Your task to perform on an android device: turn on bluetooth scan Image 0: 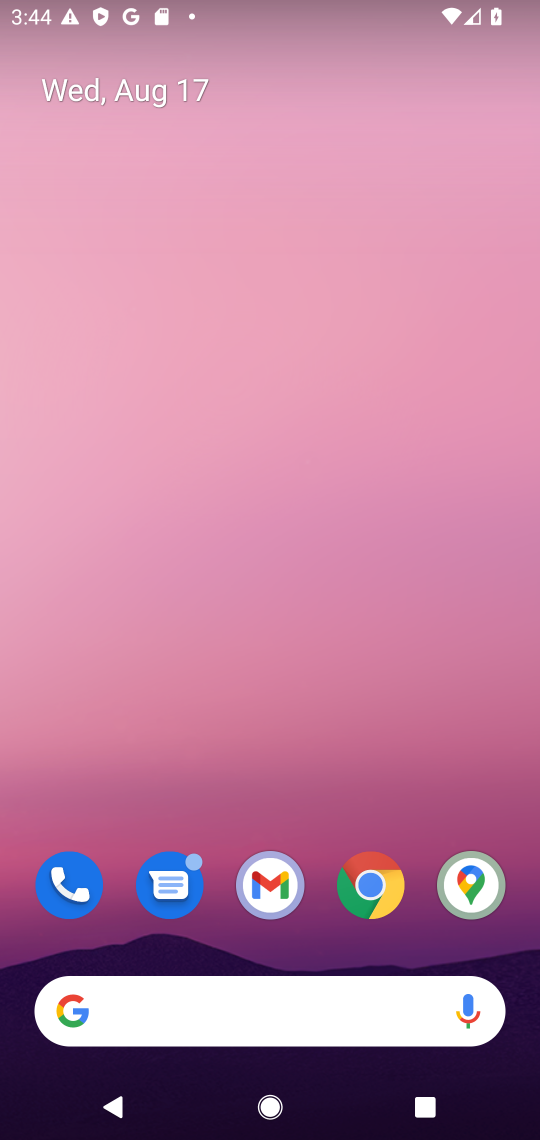
Step 0: drag from (229, 1005) to (268, 275)
Your task to perform on an android device: turn on bluetooth scan Image 1: 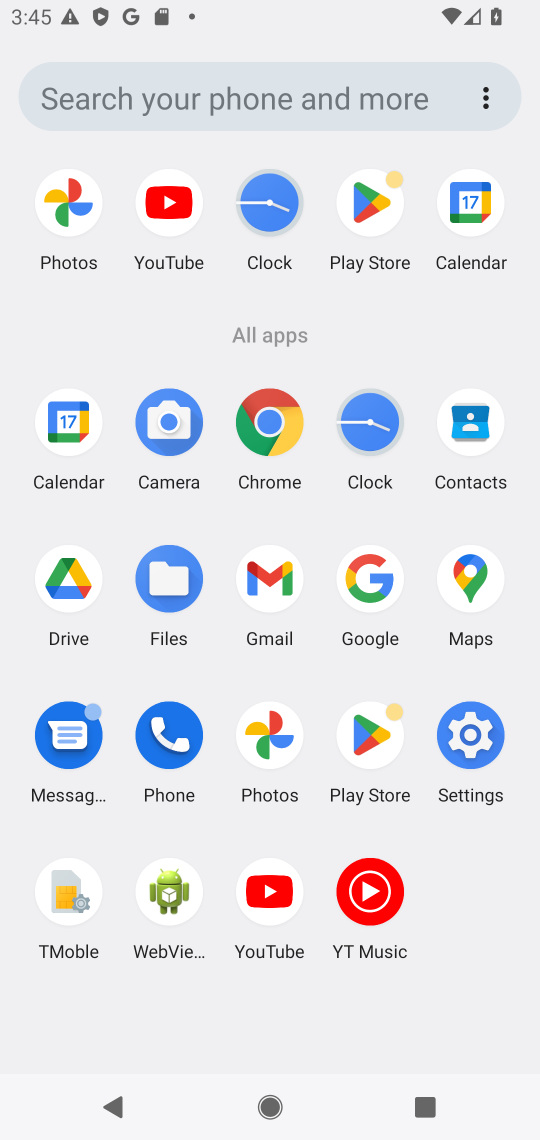
Step 1: click (470, 736)
Your task to perform on an android device: turn on bluetooth scan Image 2: 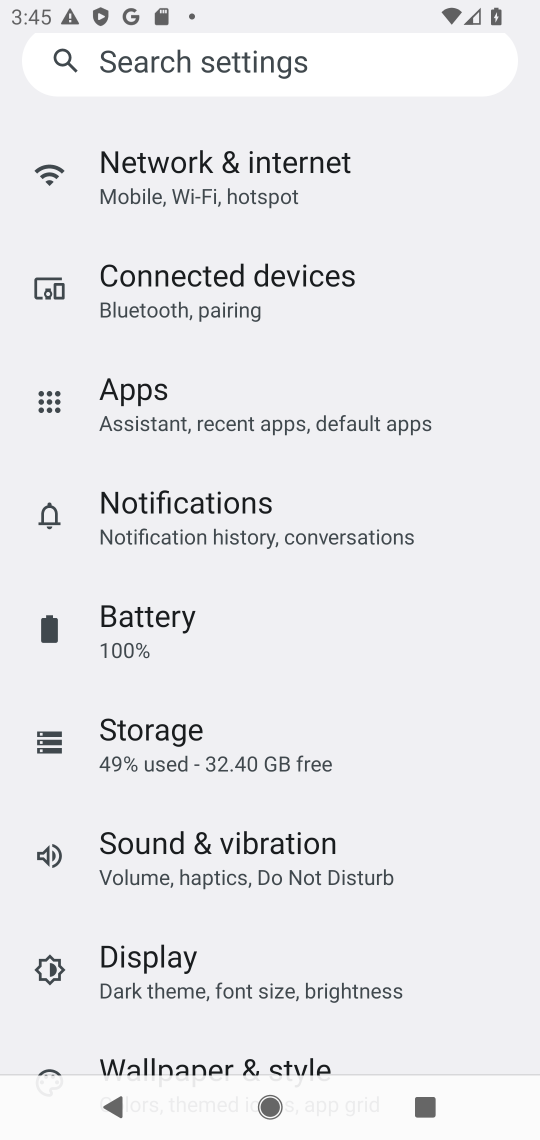
Step 2: drag from (222, 783) to (297, 623)
Your task to perform on an android device: turn on bluetooth scan Image 3: 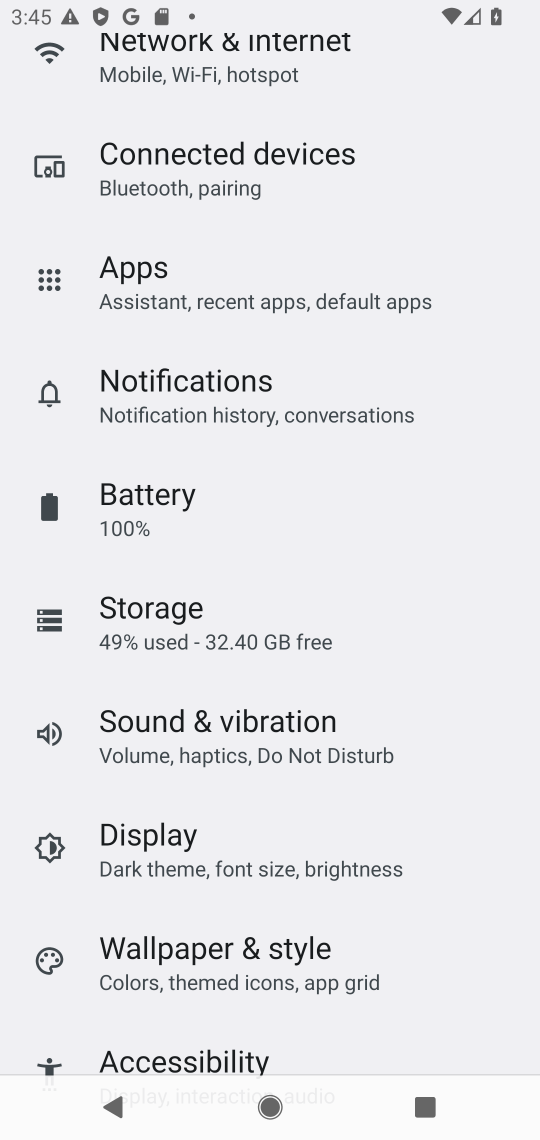
Step 3: drag from (229, 786) to (308, 633)
Your task to perform on an android device: turn on bluetooth scan Image 4: 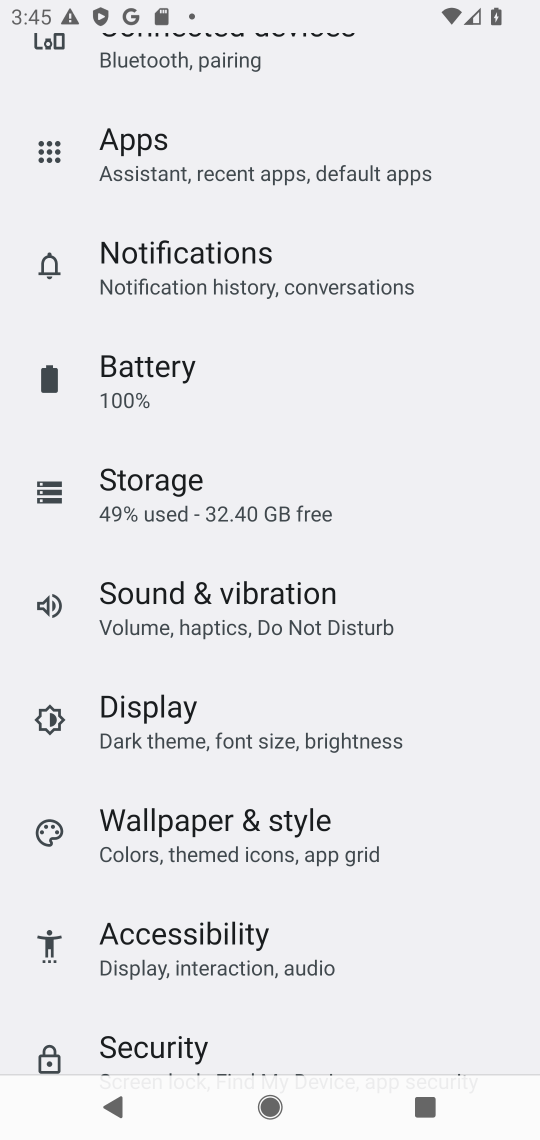
Step 4: drag from (201, 796) to (297, 652)
Your task to perform on an android device: turn on bluetooth scan Image 5: 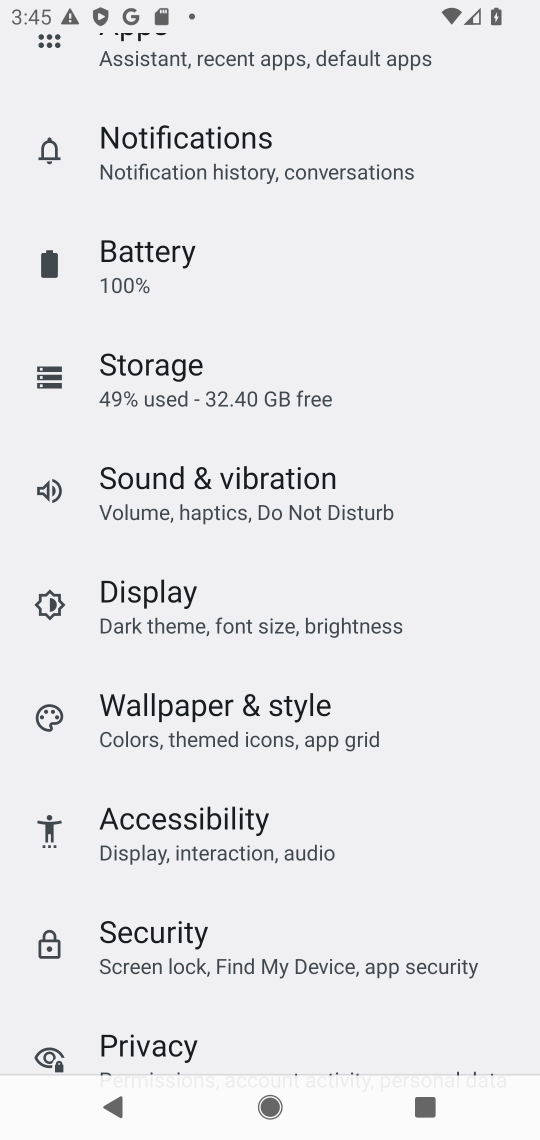
Step 5: drag from (171, 899) to (274, 745)
Your task to perform on an android device: turn on bluetooth scan Image 6: 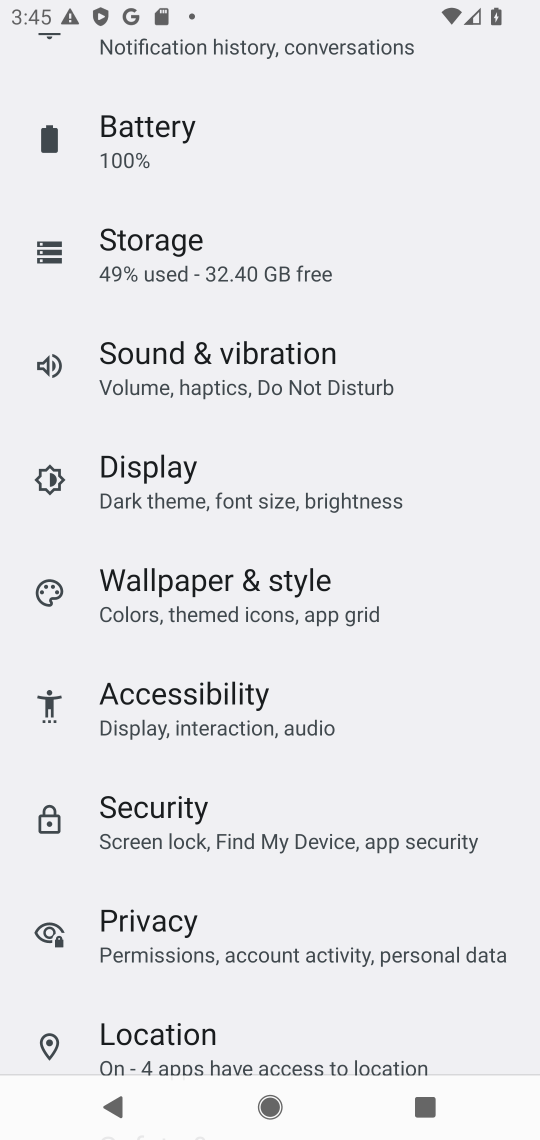
Step 6: drag from (162, 881) to (268, 705)
Your task to perform on an android device: turn on bluetooth scan Image 7: 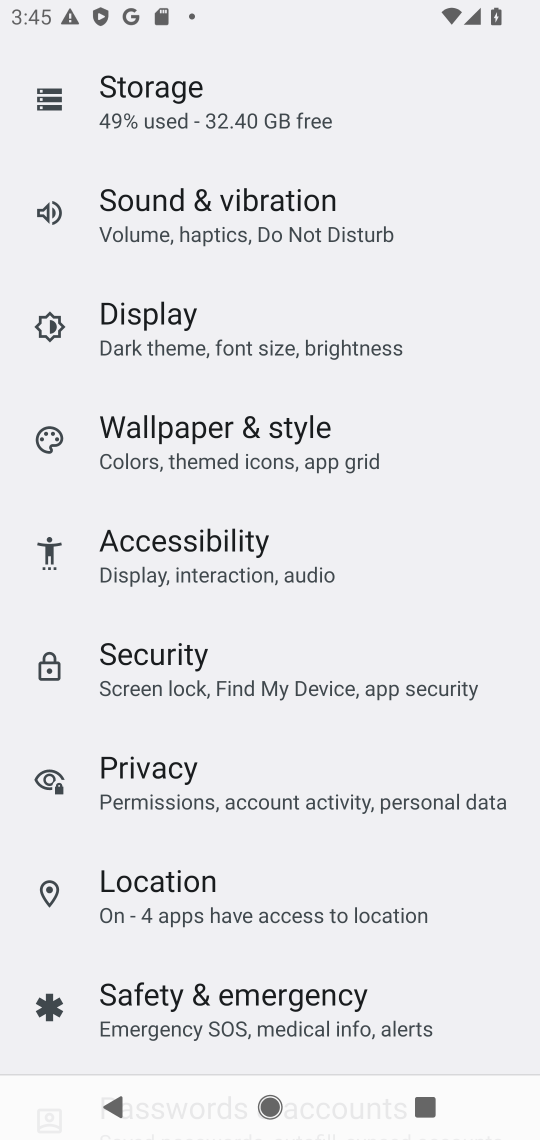
Step 7: click (190, 900)
Your task to perform on an android device: turn on bluetooth scan Image 8: 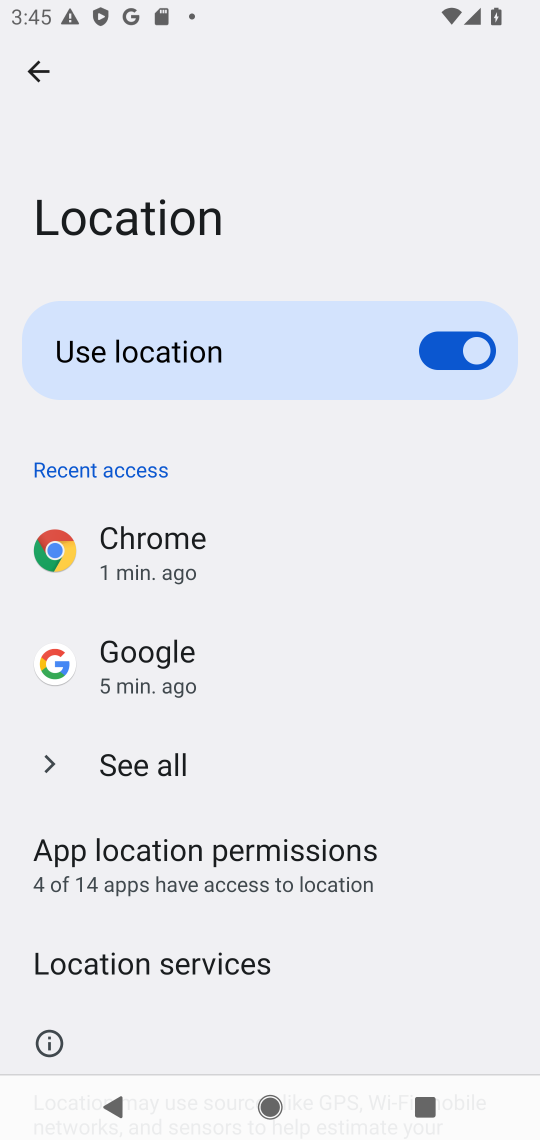
Step 8: click (222, 964)
Your task to perform on an android device: turn on bluetooth scan Image 9: 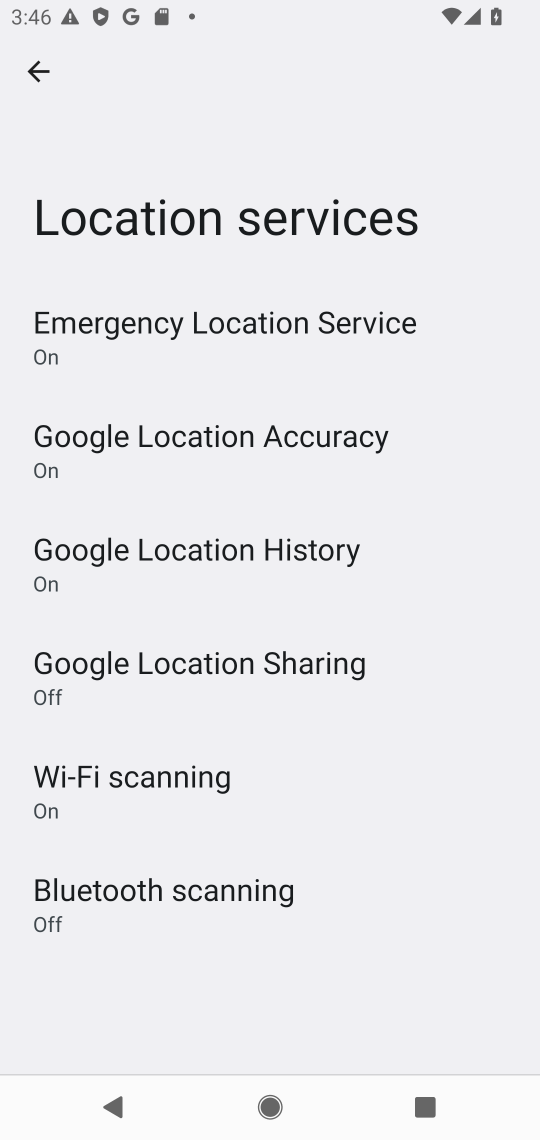
Step 9: click (214, 895)
Your task to perform on an android device: turn on bluetooth scan Image 10: 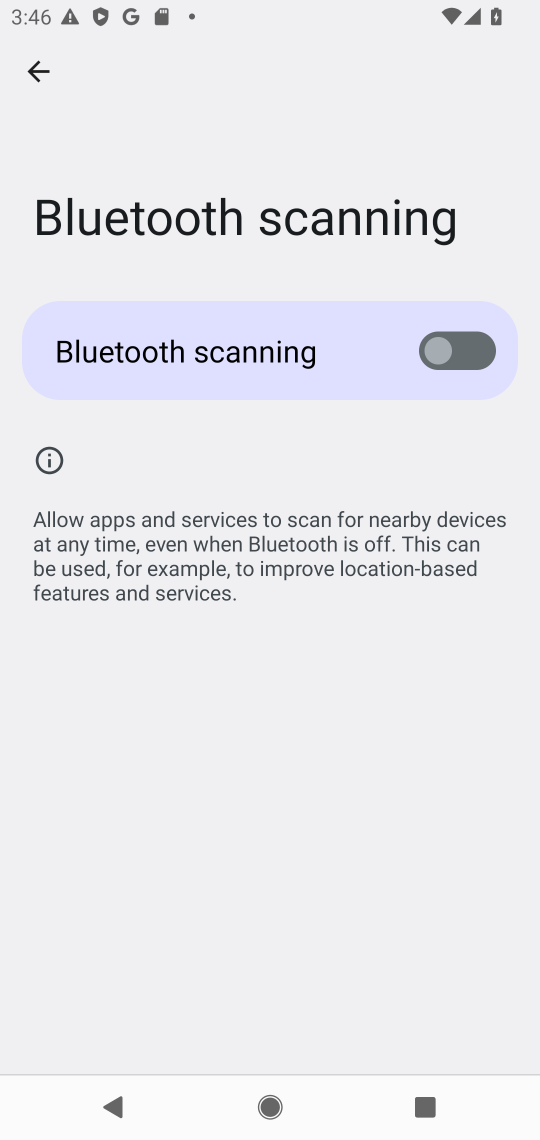
Step 10: click (443, 354)
Your task to perform on an android device: turn on bluetooth scan Image 11: 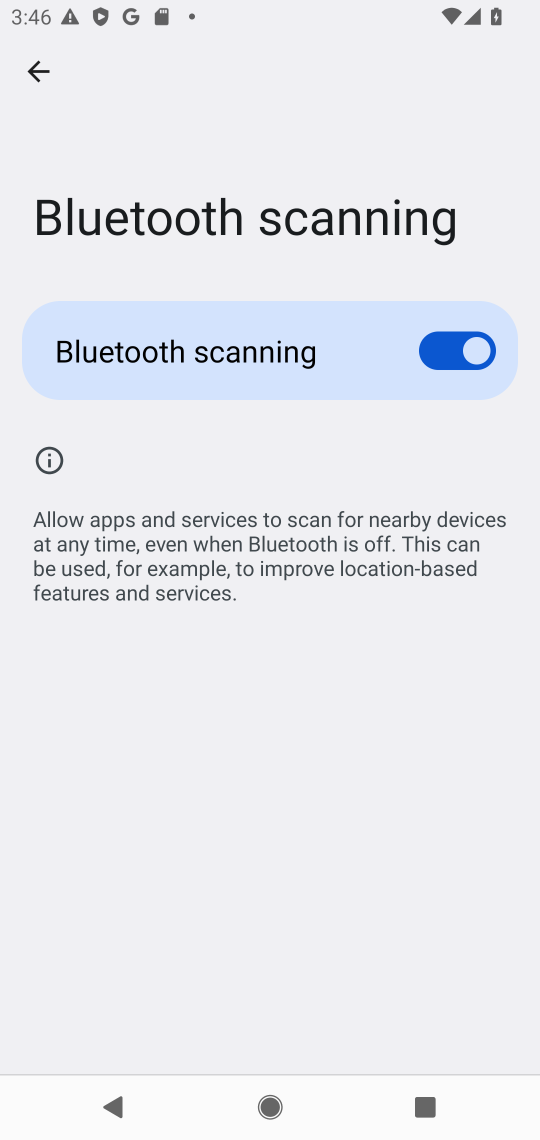
Step 11: task complete